Your task to perform on an android device: Go to eBay Image 0: 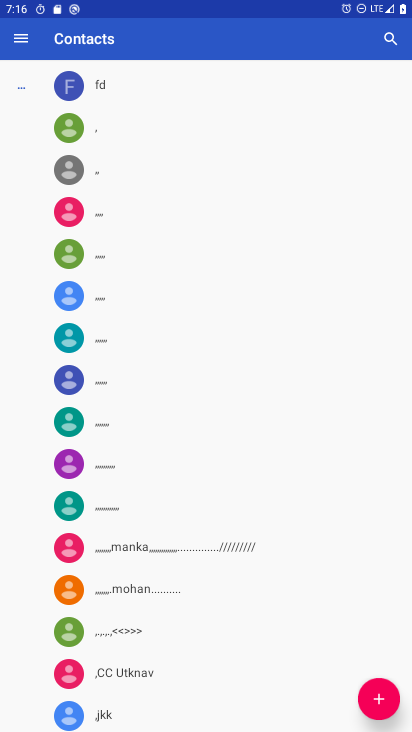
Step 0: press home button
Your task to perform on an android device: Go to eBay Image 1: 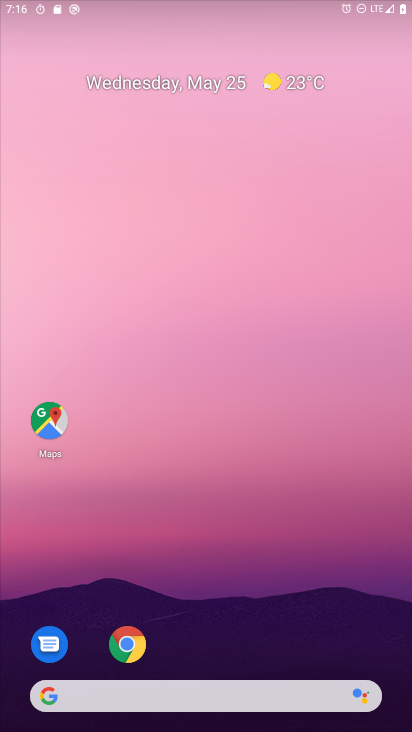
Step 1: drag from (358, 650) to (236, 60)
Your task to perform on an android device: Go to eBay Image 2: 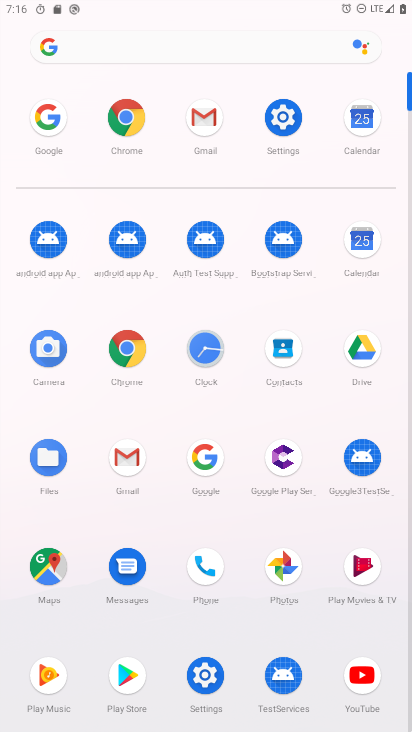
Step 2: click (209, 449)
Your task to perform on an android device: Go to eBay Image 3: 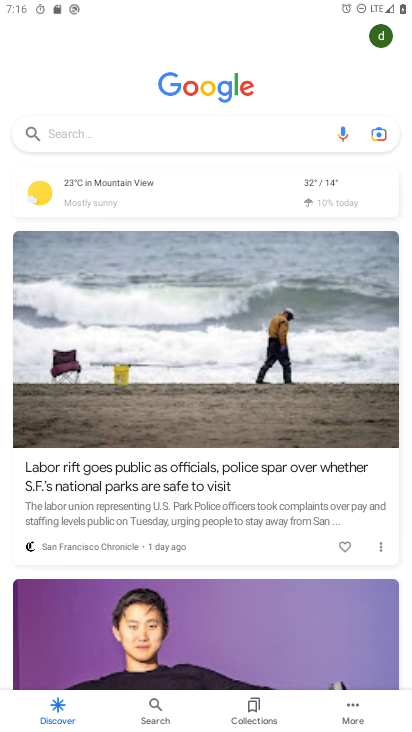
Step 3: click (131, 130)
Your task to perform on an android device: Go to eBay Image 4: 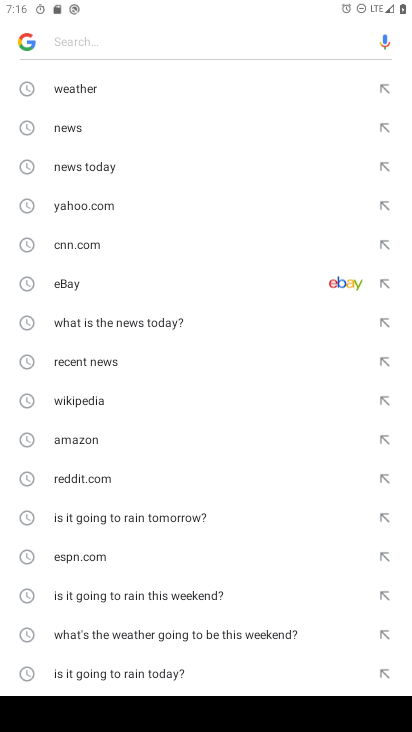
Step 4: click (94, 289)
Your task to perform on an android device: Go to eBay Image 5: 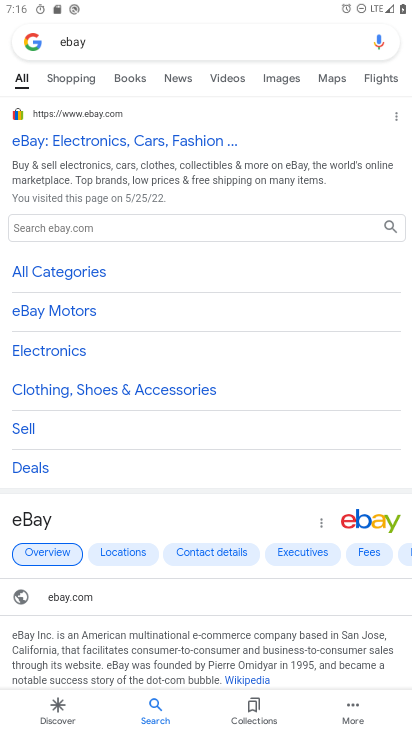
Step 5: task complete